Your task to perform on an android device: Go to accessibility settings Image 0: 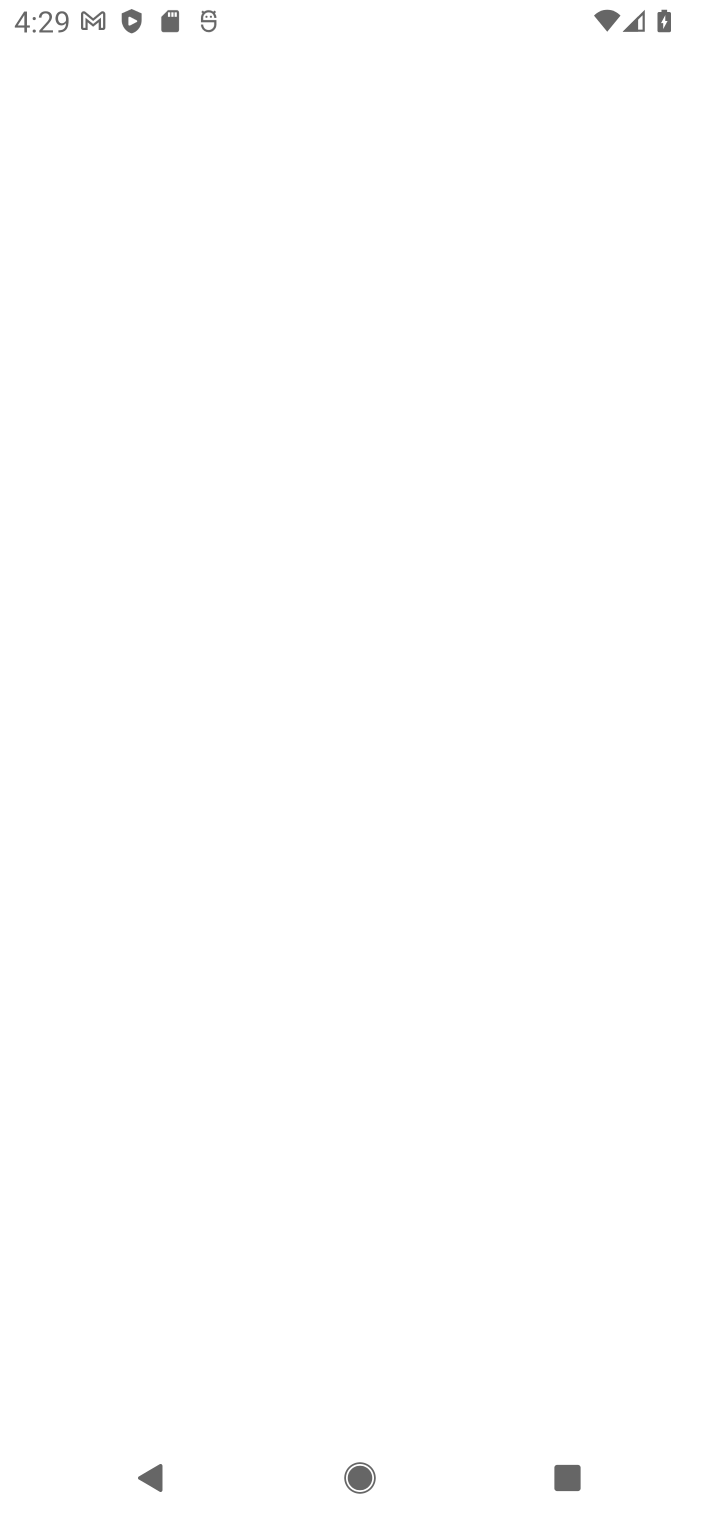
Step 0: press home button
Your task to perform on an android device: Go to accessibility settings Image 1: 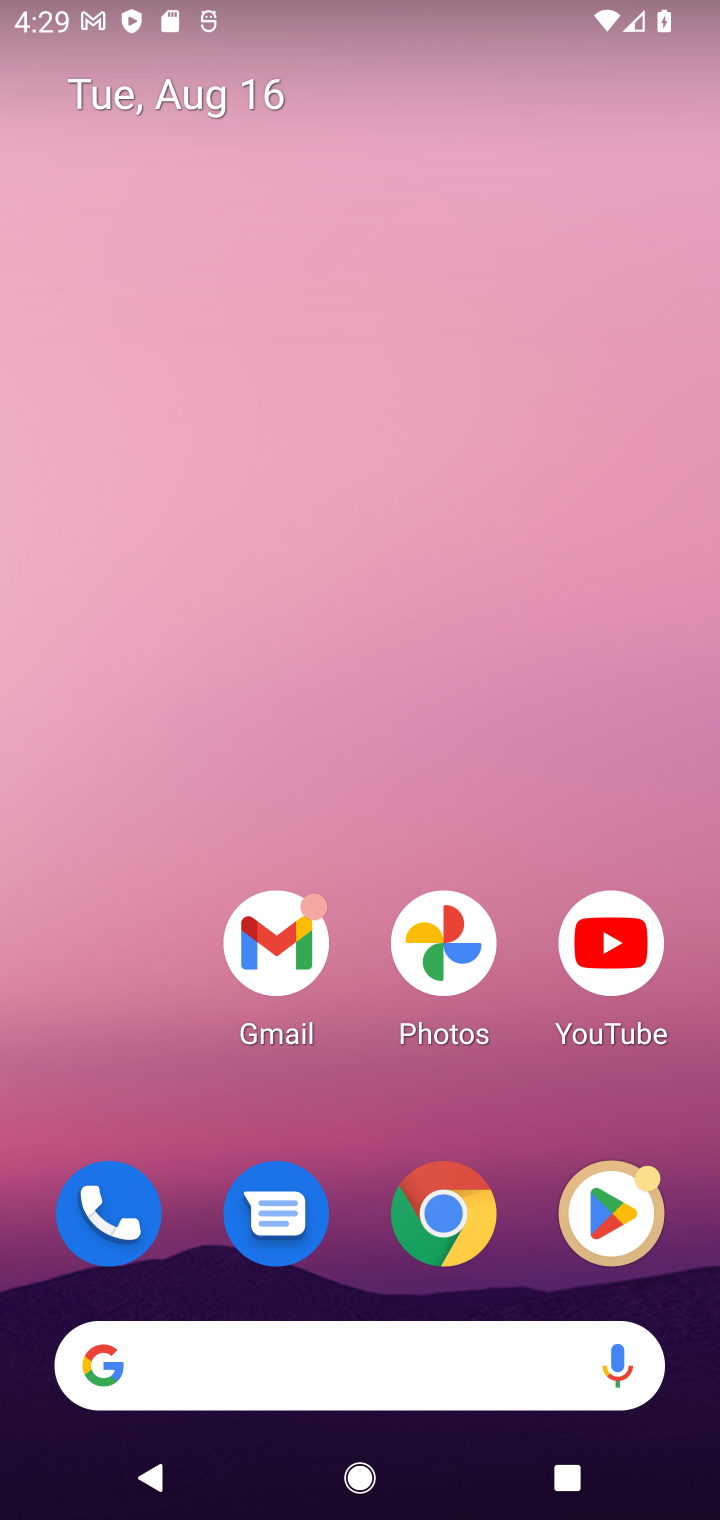
Step 1: drag from (336, 1114) to (224, 101)
Your task to perform on an android device: Go to accessibility settings Image 2: 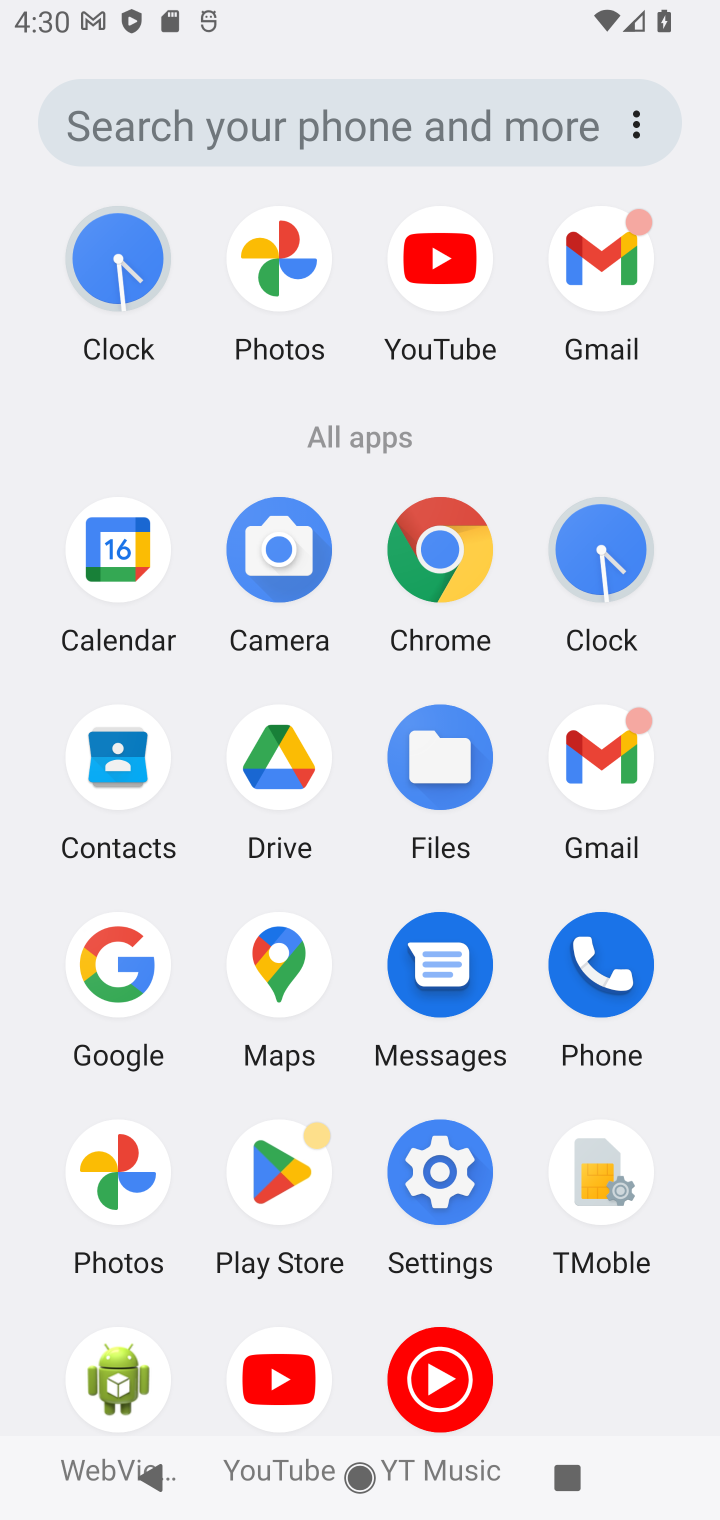
Step 2: click (441, 1174)
Your task to perform on an android device: Go to accessibility settings Image 3: 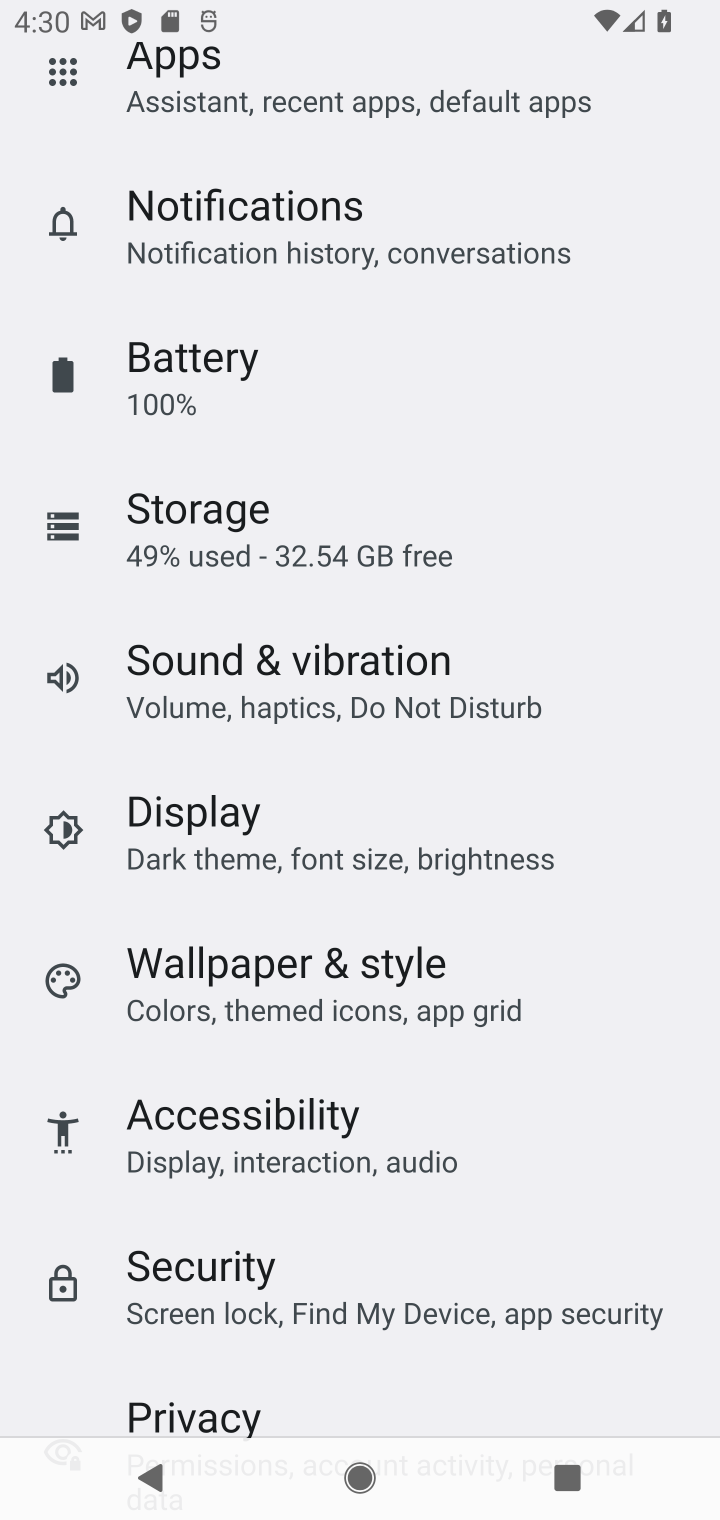
Step 3: click (287, 1139)
Your task to perform on an android device: Go to accessibility settings Image 4: 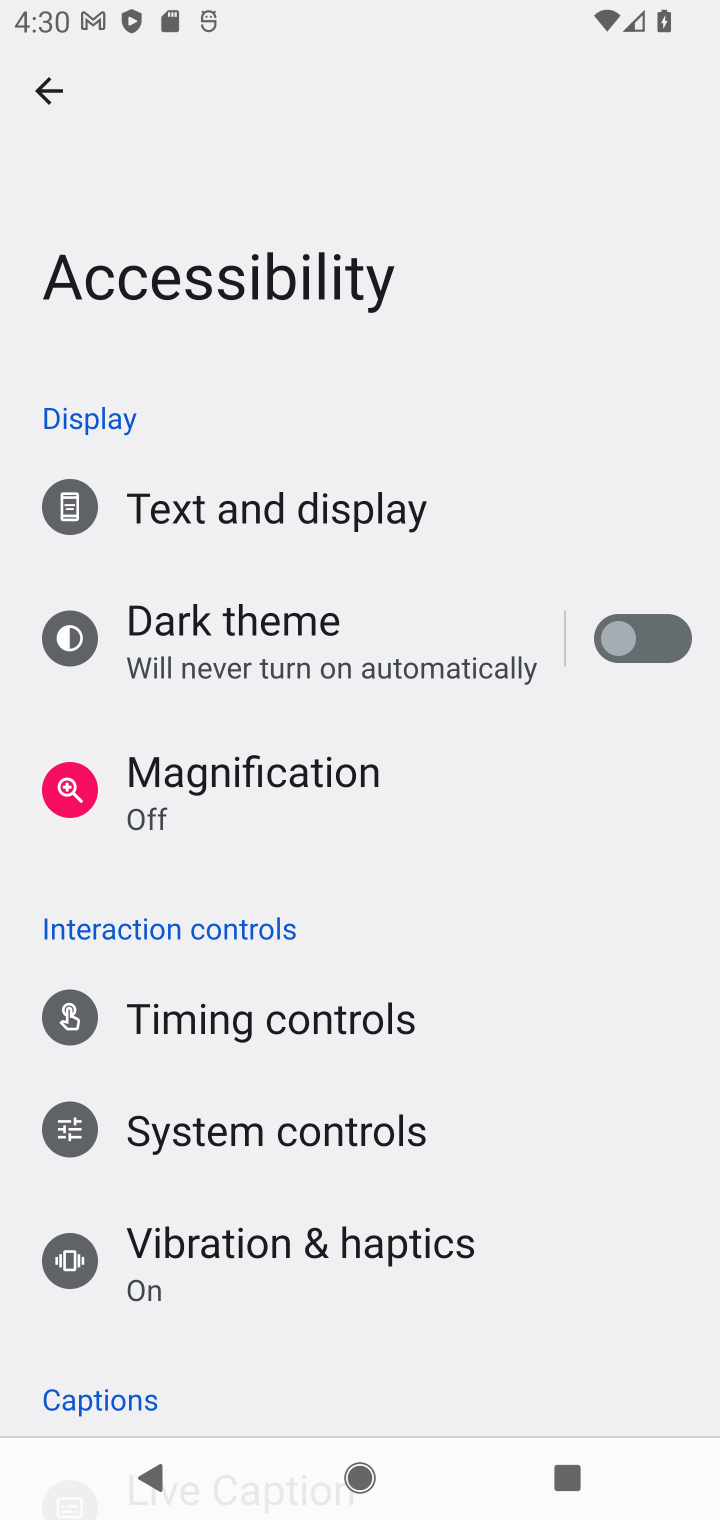
Step 4: task complete